Your task to perform on an android device: Open Maps and search for coffee Image 0: 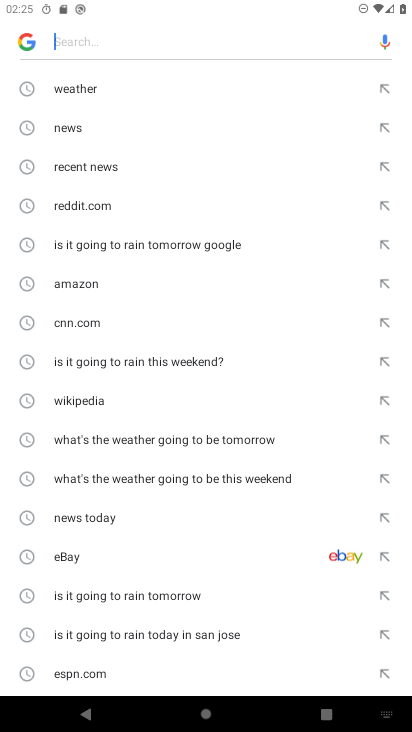
Step 0: press home button
Your task to perform on an android device: Open Maps and search for coffee Image 1: 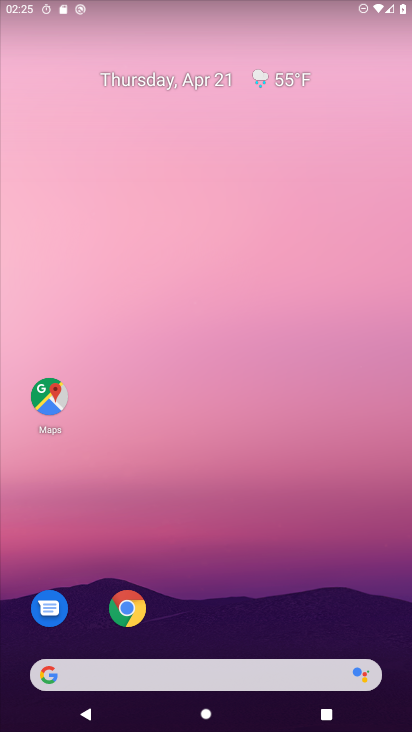
Step 1: click (43, 405)
Your task to perform on an android device: Open Maps and search for coffee Image 2: 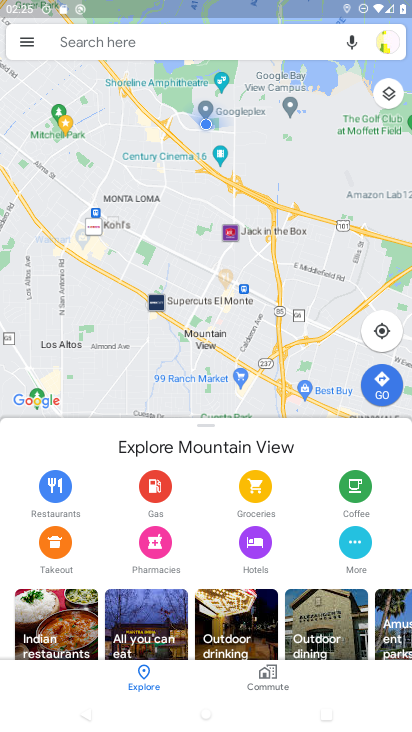
Step 2: click (124, 43)
Your task to perform on an android device: Open Maps and search for coffee Image 3: 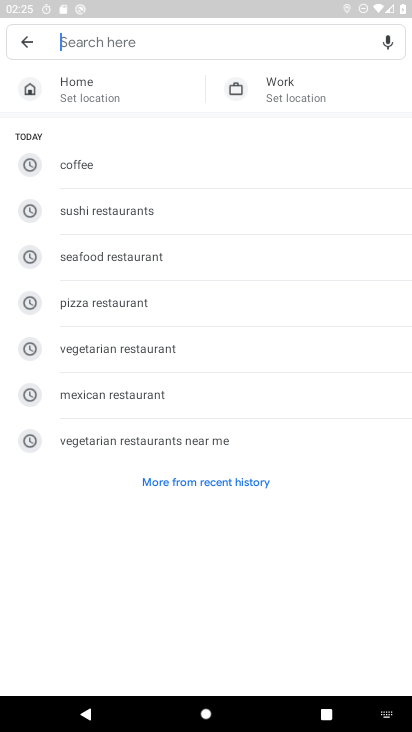
Step 3: click (72, 165)
Your task to perform on an android device: Open Maps and search for coffee Image 4: 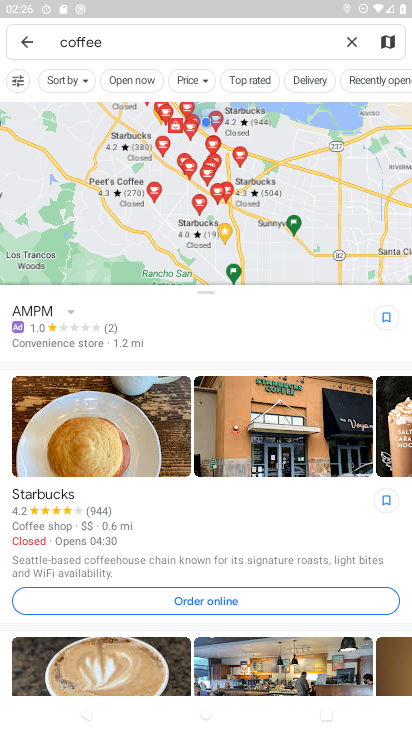
Step 4: task complete